Your task to perform on an android device: uninstall "PUBG MOBILE" Image 0: 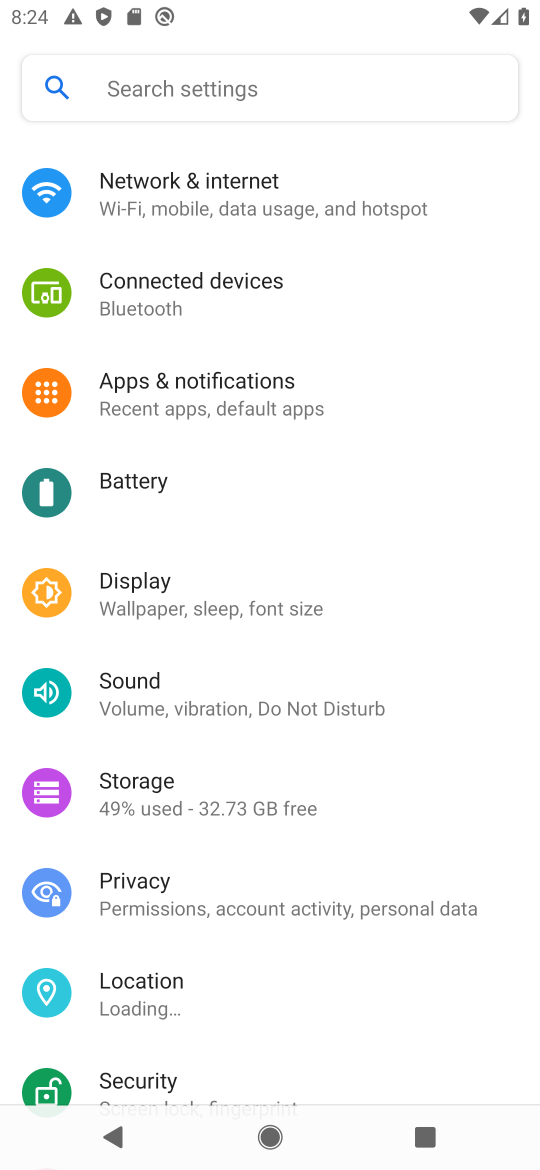
Step 0: click (412, 76)
Your task to perform on an android device: uninstall "PUBG MOBILE" Image 1: 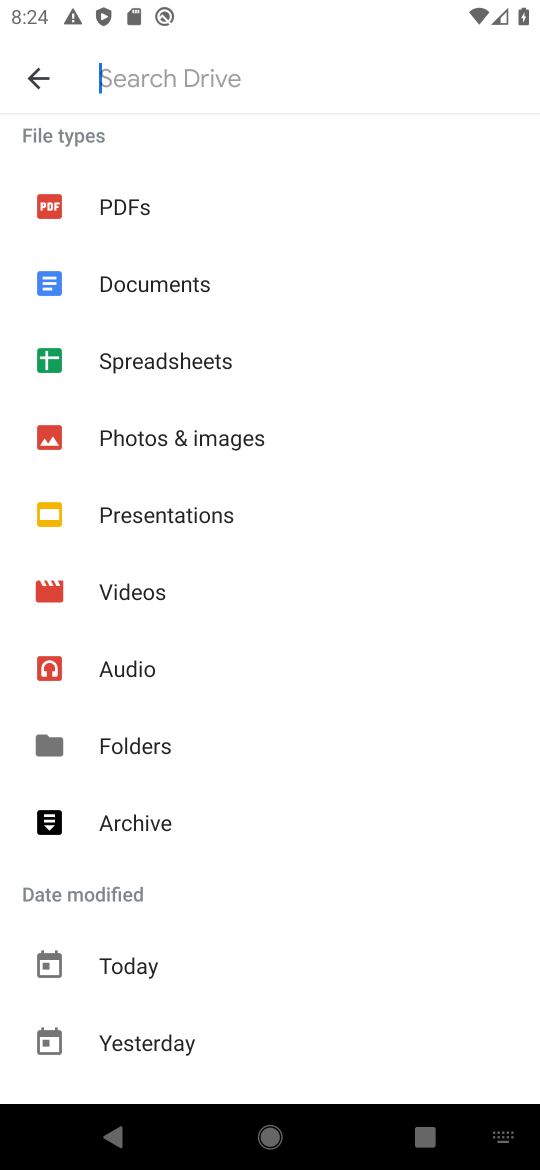
Step 1: press home button
Your task to perform on an android device: uninstall "PUBG MOBILE" Image 2: 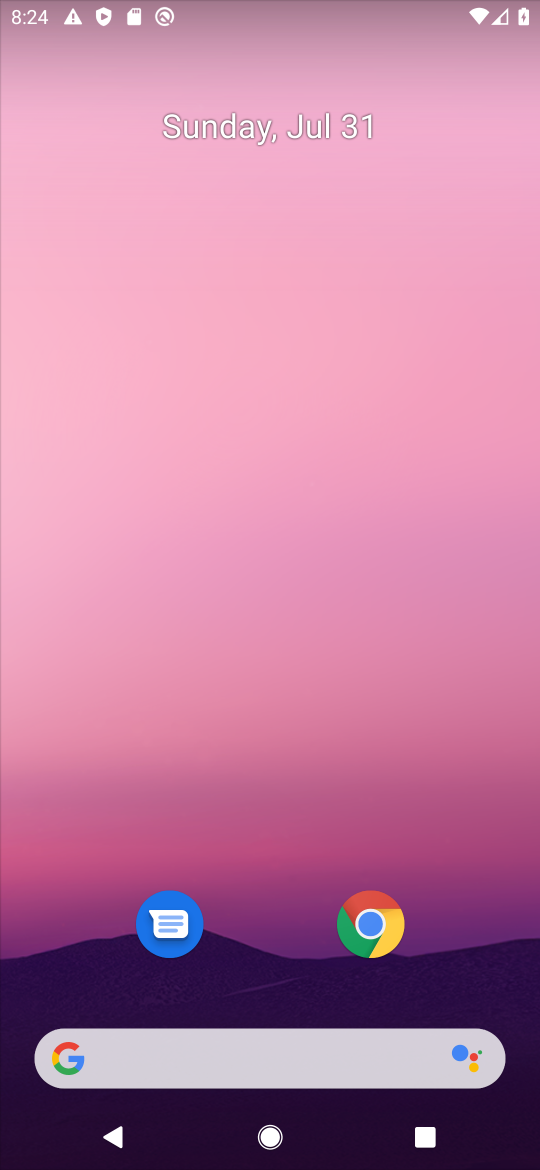
Step 2: drag from (261, 1007) to (222, 467)
Your task to perform on an android device: uninstall "PUBG MOBILE" Image 3: 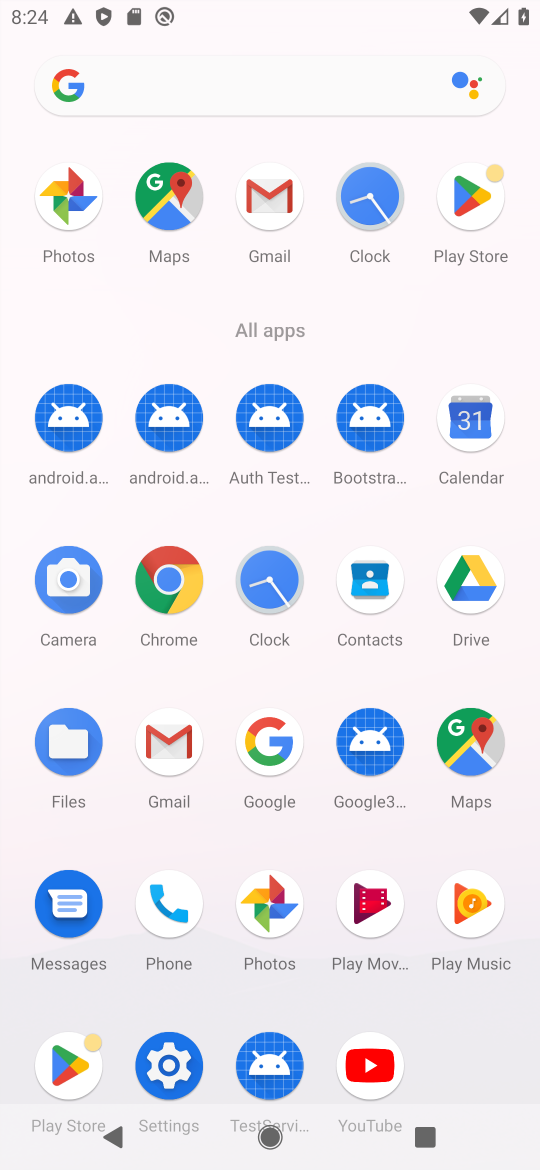
Step 3: click (490, 205)
Your task to perform on an android device: uninstall "PUBG MOBILE" Image 4: 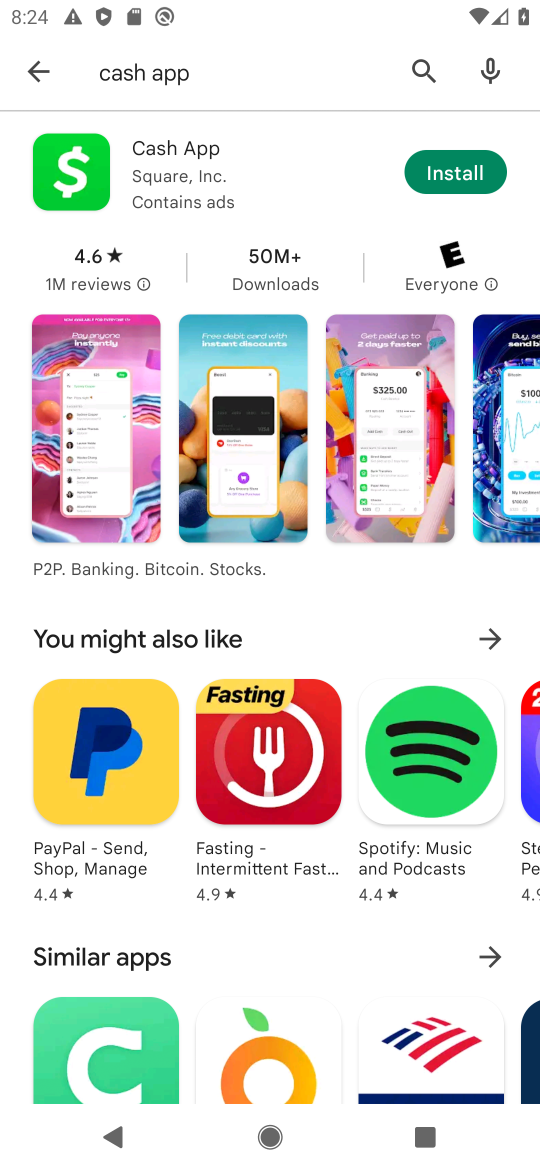
Step 4: click (421, 52)
Your task to perform on an android device: uninstall "PUBG MOBILE" Image 5: 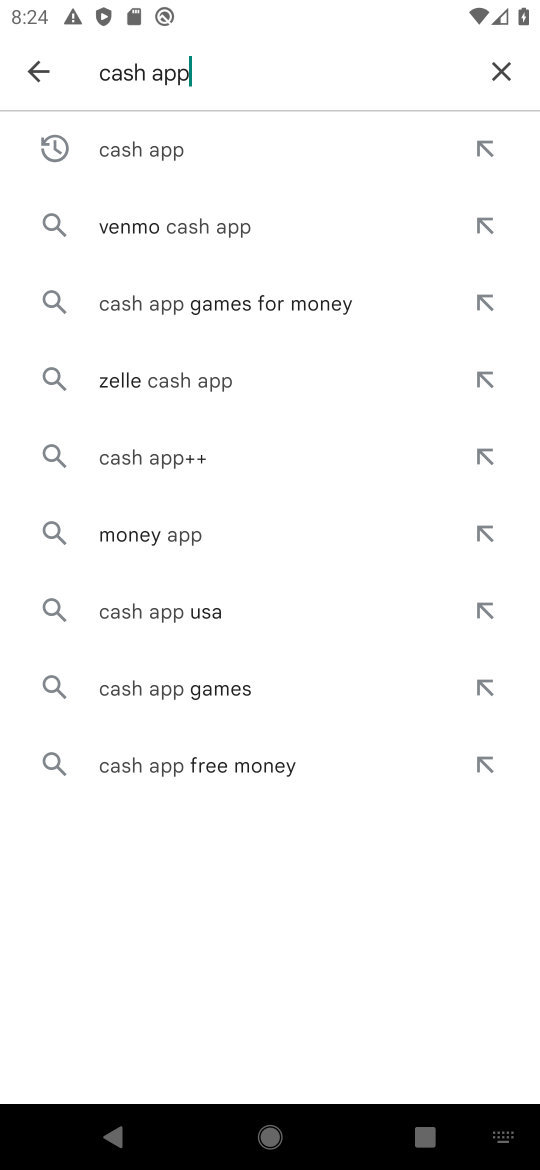
Step 5: click (503, 71)
Your task to perform on an android device: uninstall "PUBG MOBILE" Image 6: 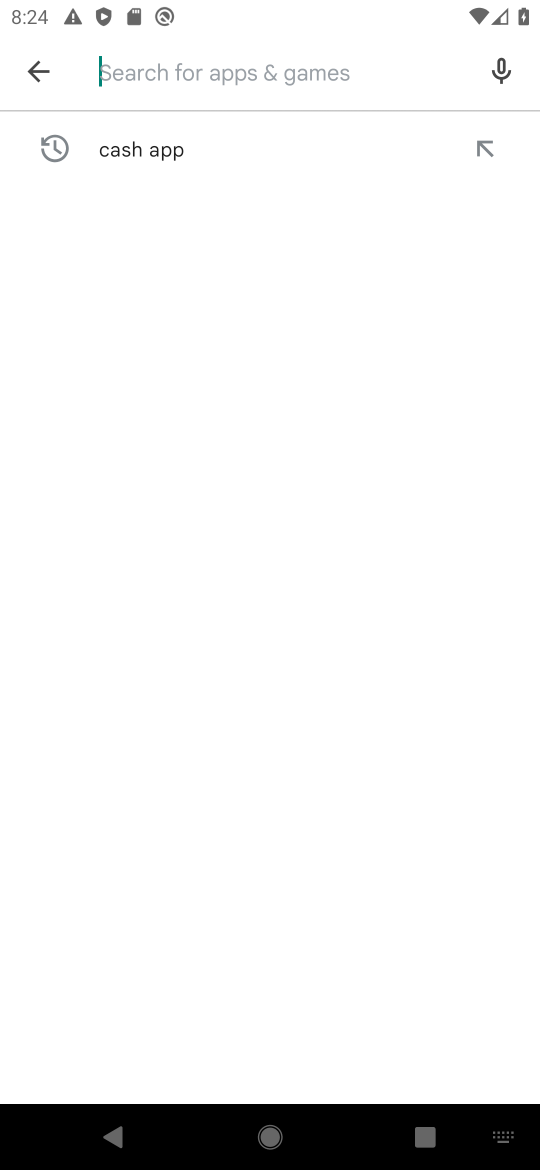
Step 6: type "PUBG MOBILE"
Your task to perform on an android device: uninstall "PUBG MOBILE" Image 7: 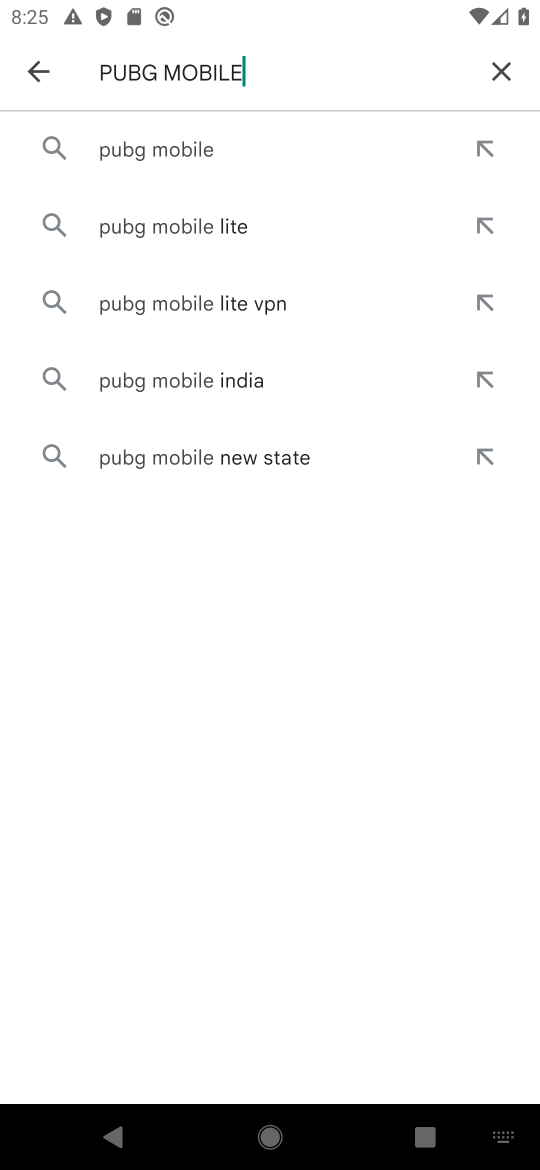
Step 7: click (183, 144)
Your task to perform on an android device: uninstall "PUBG MOBILE" Image 8: 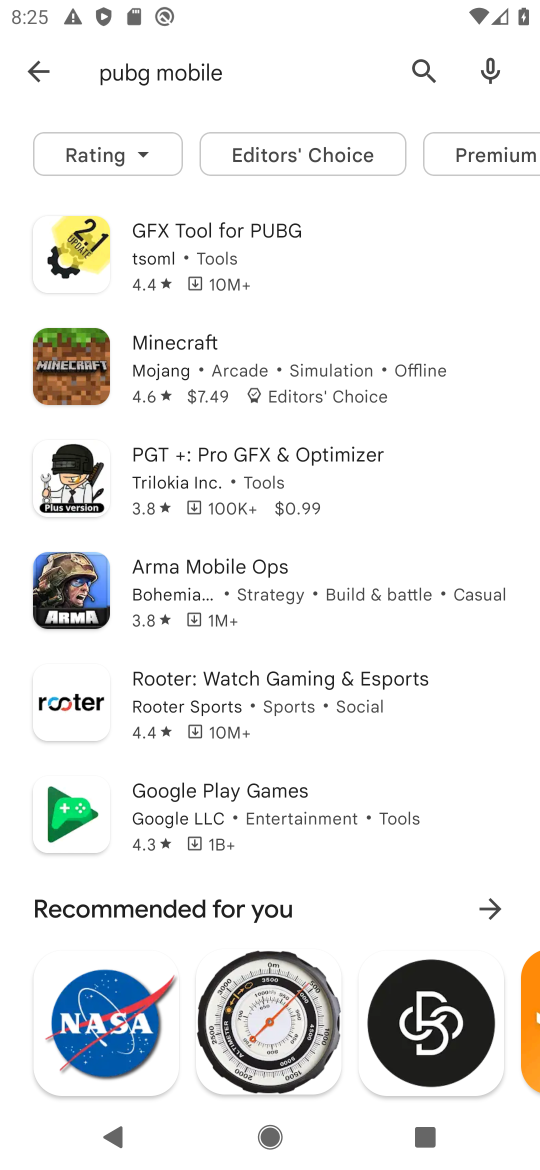
Step 8: task complete